Your task to perform on an android device: open a bookmark in the chrome app Image 0: 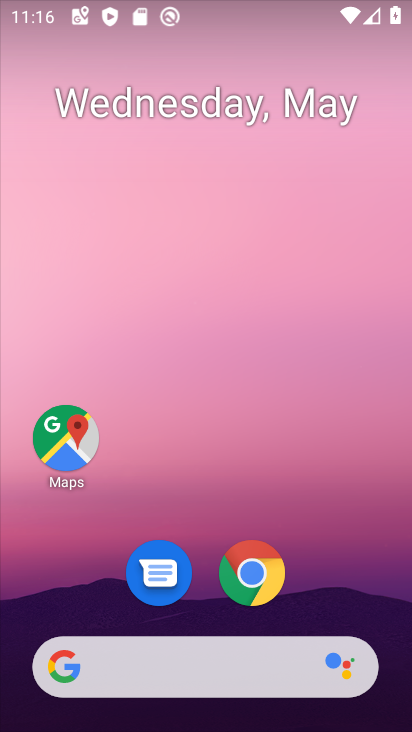
Step 0: click (257, 572)
Your task to perform on an android device: open a bookmark in the chrome app Image 1: 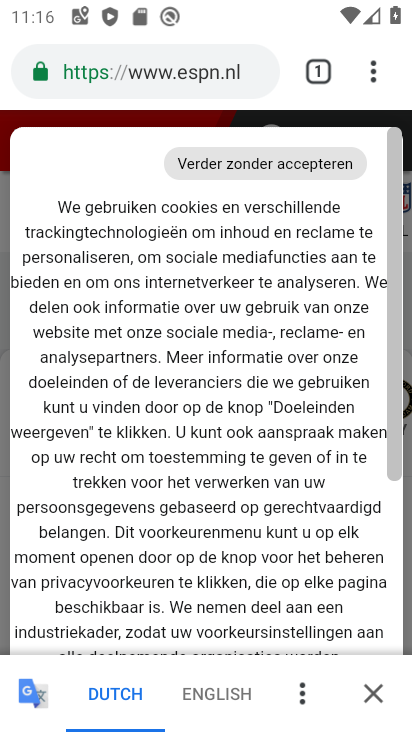
Step 1: click (368, 75)
Your task to perform on an android device: open a bookmark in the chrome app Image 2: 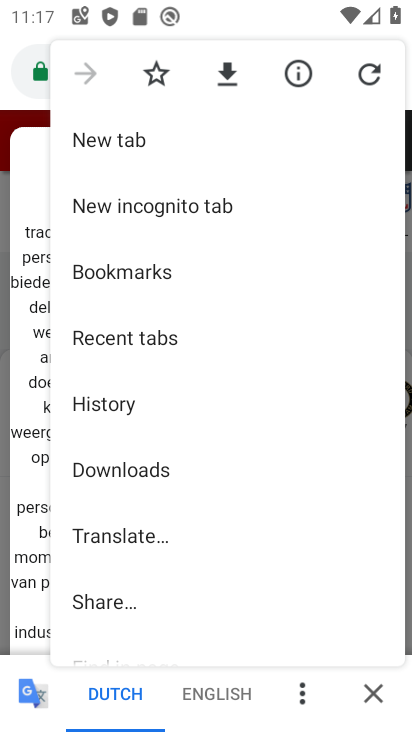
Step 2: click (138, 268)
Your task to perform on an android device: open a bookmark in the chrome app Image 3: 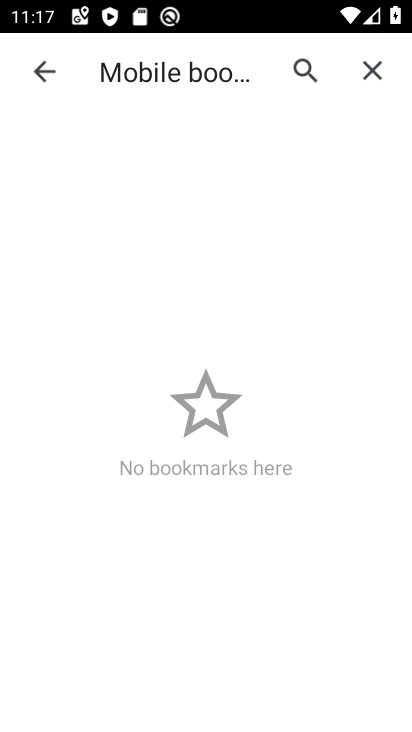
Step 3: task complete